Your task to perform on an android device: turn off sleep mode Image 0: 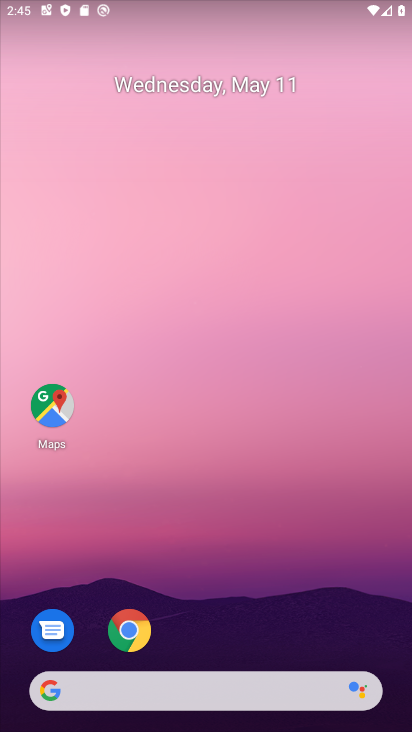
Step 0: drag from (371, 639) to (362, 4)
Your task to perform on an android device: turn off sleep mode Image 1: 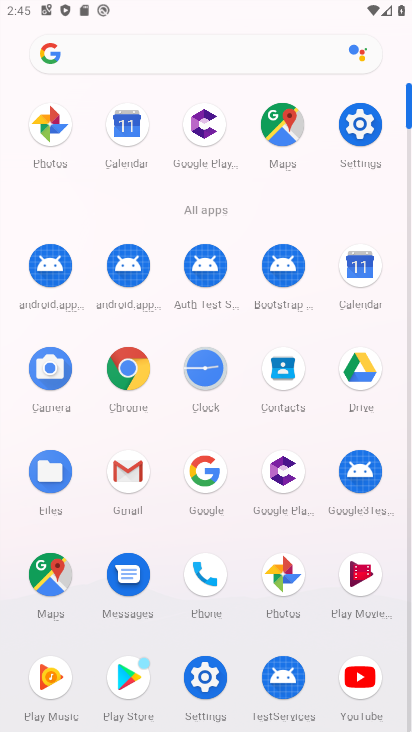
Step 1: click (358, 128)
Your task to perform on an android device: turn off sleep mode Image 2: 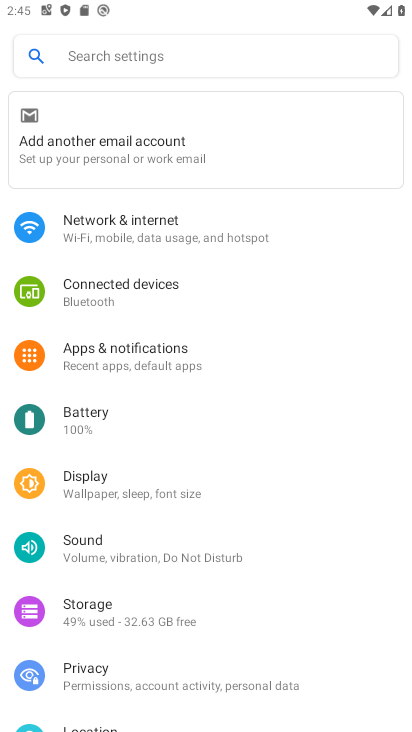
Step 2: click (117, 496)
Your task to perform on an android device: turn off sleep mode Image 3: 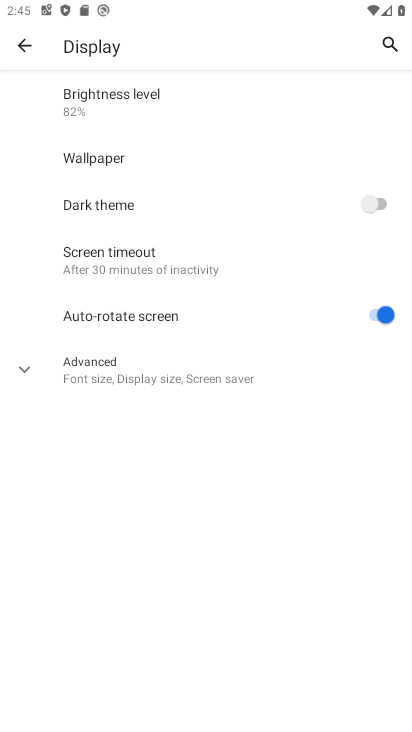
Step 3: click (19, 395)
Your task to perform on an android device: turn off sleep mode Image 4: 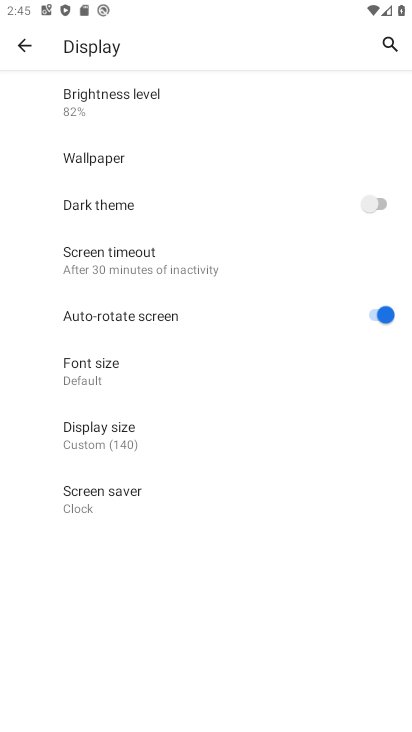
Step 4: task complete